Your task to perform on an android device: check the backup settings in the google photos Image 0: 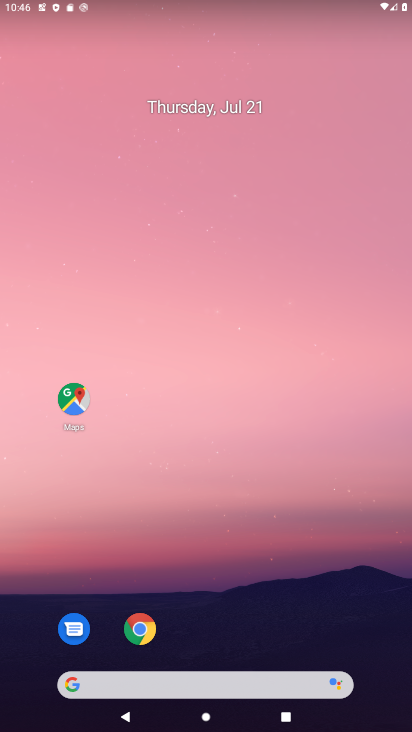
Step 0: drag from (293, 543) to (292, 163)
Your task to perform on an android device: check the backup settings in the google photos Image 1: 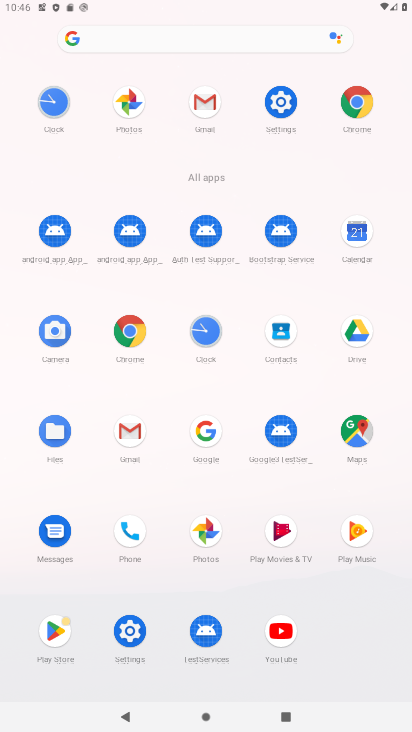
Step 1: click (200, 532)
Your task to perform on an android device: check the backup settings in the google photos Image 2: 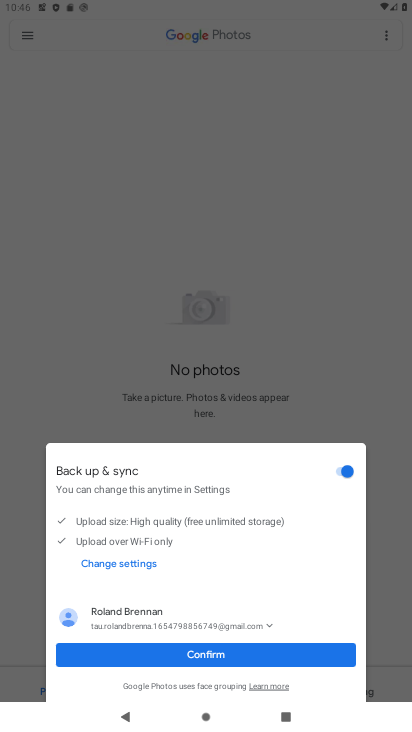
Step 2: task complete